Your task to perform on an android device: open app "Roku - Official Remote Control" (install if not already installed), go to login, and select forgot password Image 0: 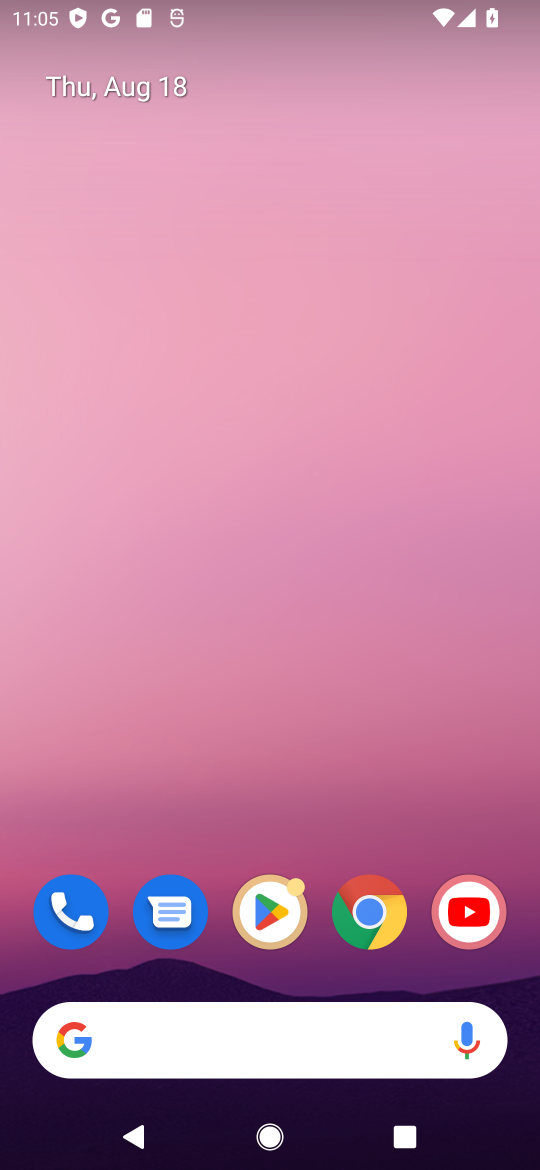
Step 0: click (276, 918)
Your task to perform on an android device: open app "Roku - Official Remote Control" (install if not already installed), go to login, and select forgot password Image 1: 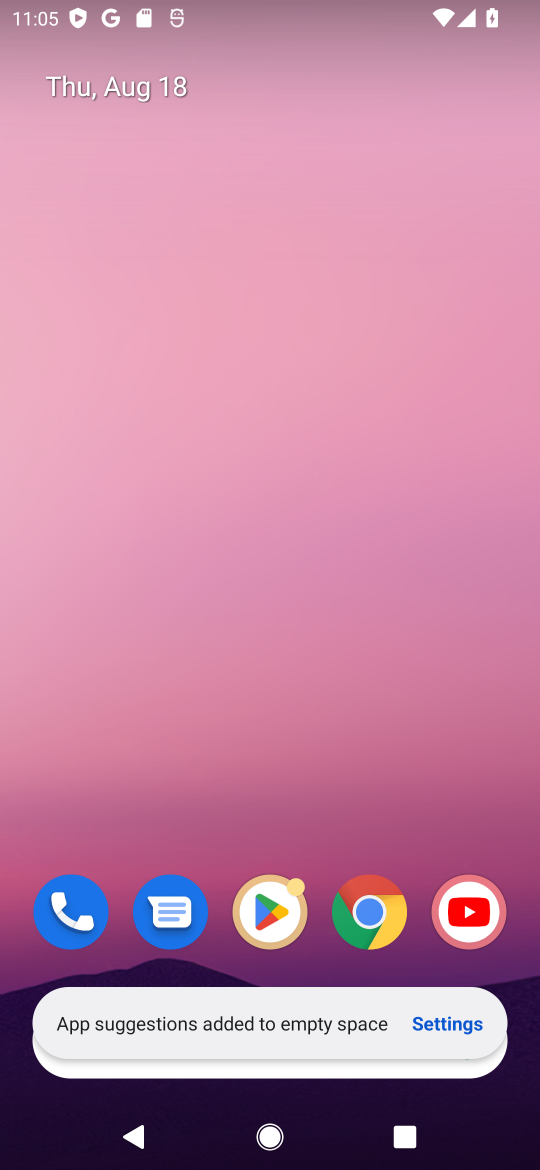
Step 1: click (275, 892)
Your task to perform on an android device: open app "Roku - Official Remote Control" (install if not already installed), go to login, and select forgot password Image 2: 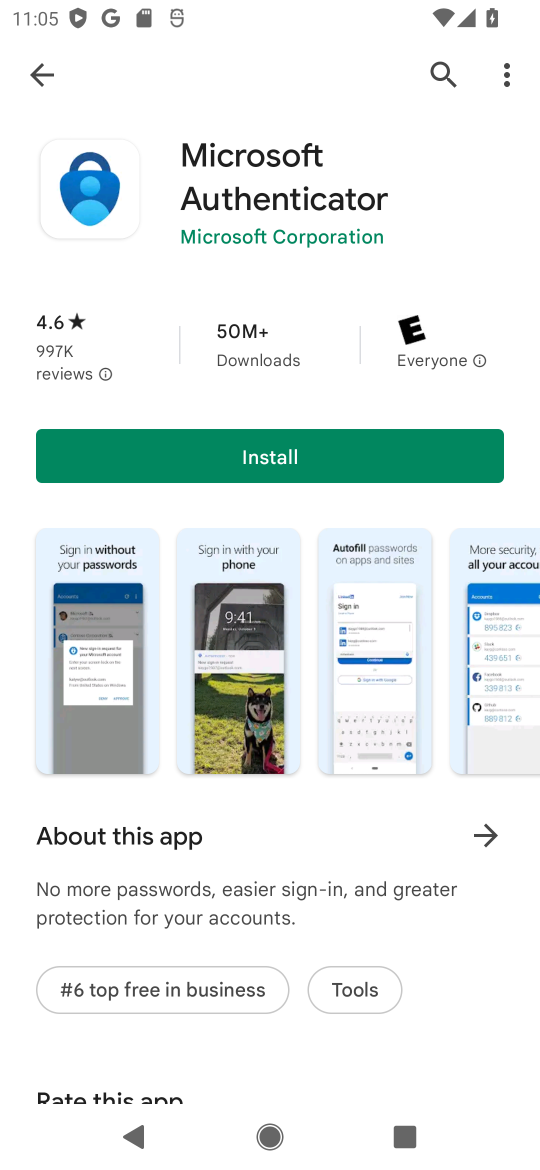
Step 2: click (432, 77)
Your task to perform on an android device: open app "Roku - Official Remote Control" (install if not already installed), go to login, and select forgot password Image 3: 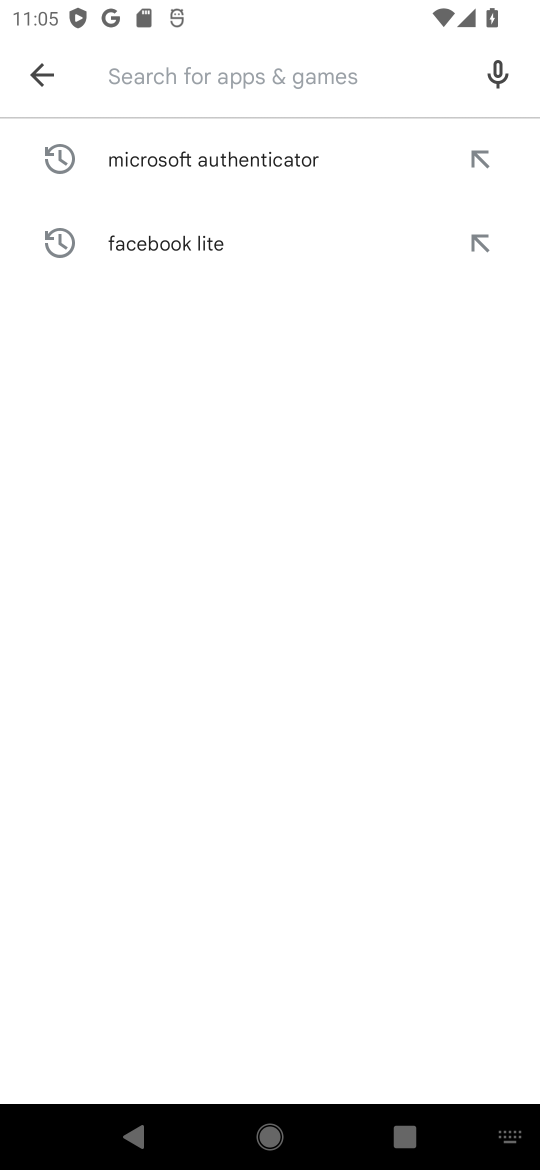
Step 3: click (177, 53)
Your task to perform on an android device: open app "Roku - Official Remote Control" (install if not already installed), go to login, and select forgot password Image 4: 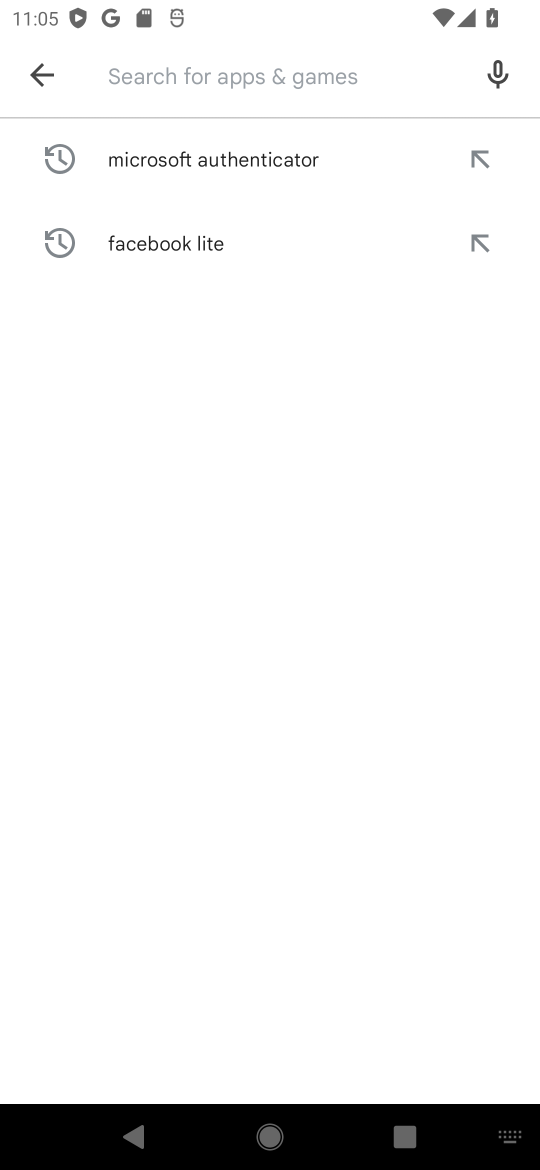
Step 4: type "roku"
Your task to perform on an android device: open app "Roku - Official Remote Control" (install if not already installed), go to login, and select forgot password Image 5: 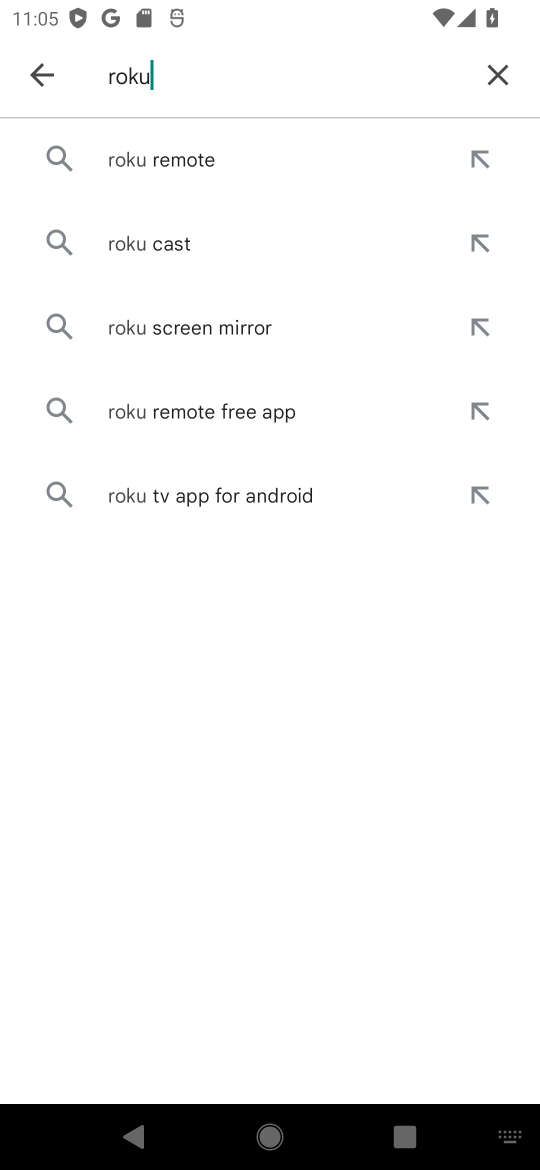
Step 5: click (204, 143)
Your task to perform on an android device: open app "Roku - Official Remote Control" (install if not already installed), go to login, and select forgot password Image 6: 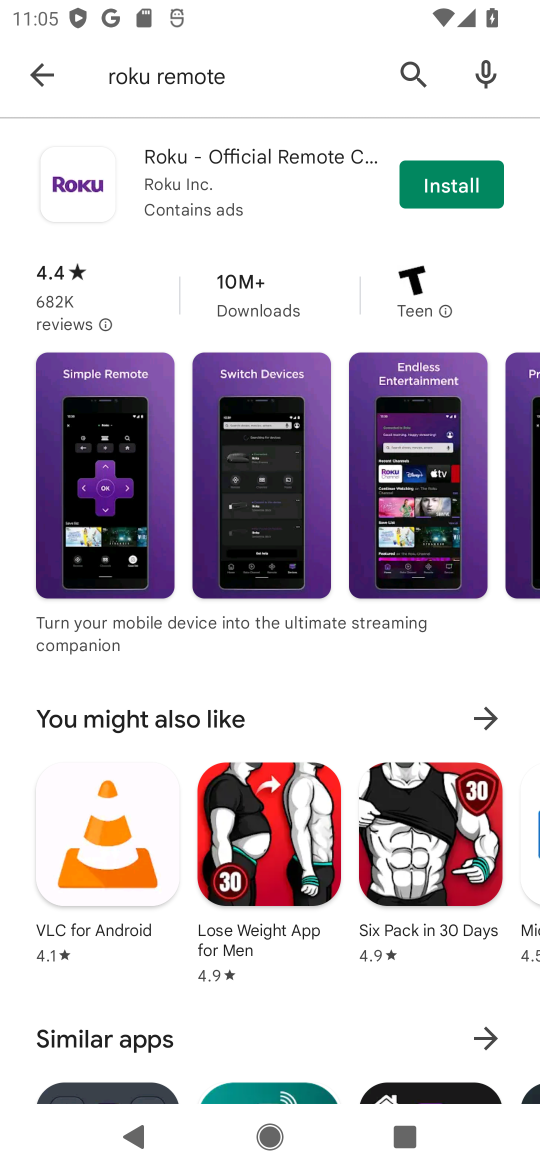
Step 6: click (488, 171)
Your task to perform on an android device: open app "Roku - Official Remote Control" (install if not already installed), go to login, and select forgot password Image 7: 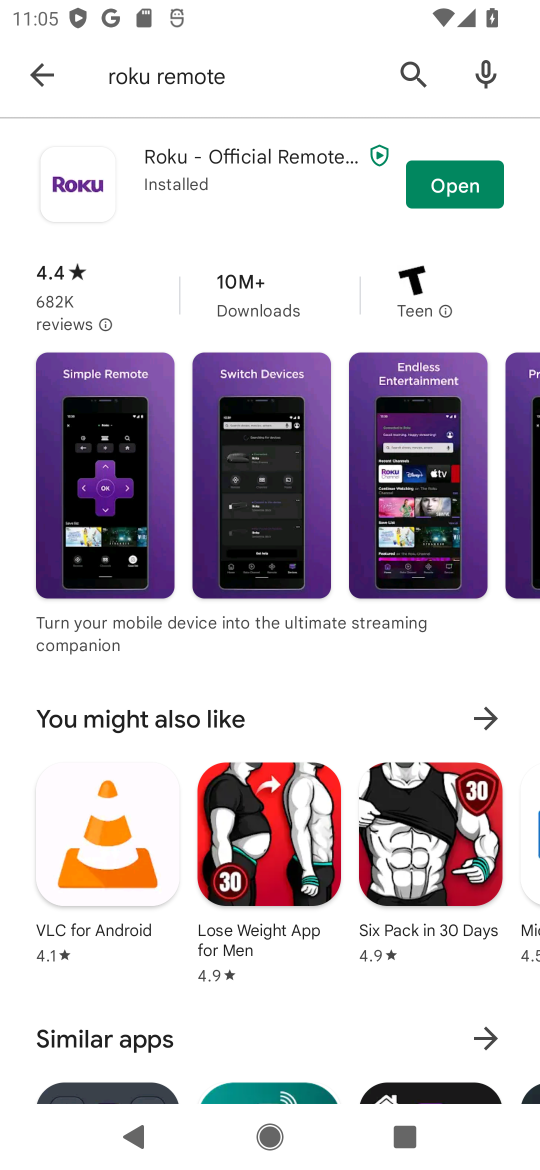
Step 7: click (462, 180)
Your task to perform on an android device: open app "Roku - Official Remote Control" (install if not already installed), go to login, and select forgot password Image 8: 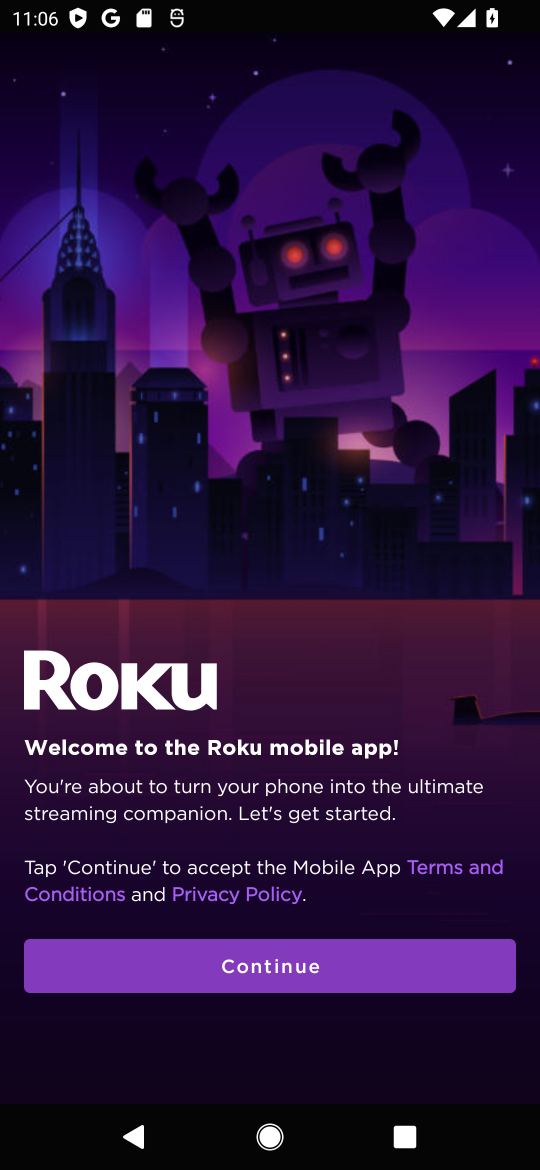
Step 8: click (296, 968)
Your task to perform on an android device: open app "Roku - Official Remote Control" (install if not already installed), go to login, and select forgot password Image 9: 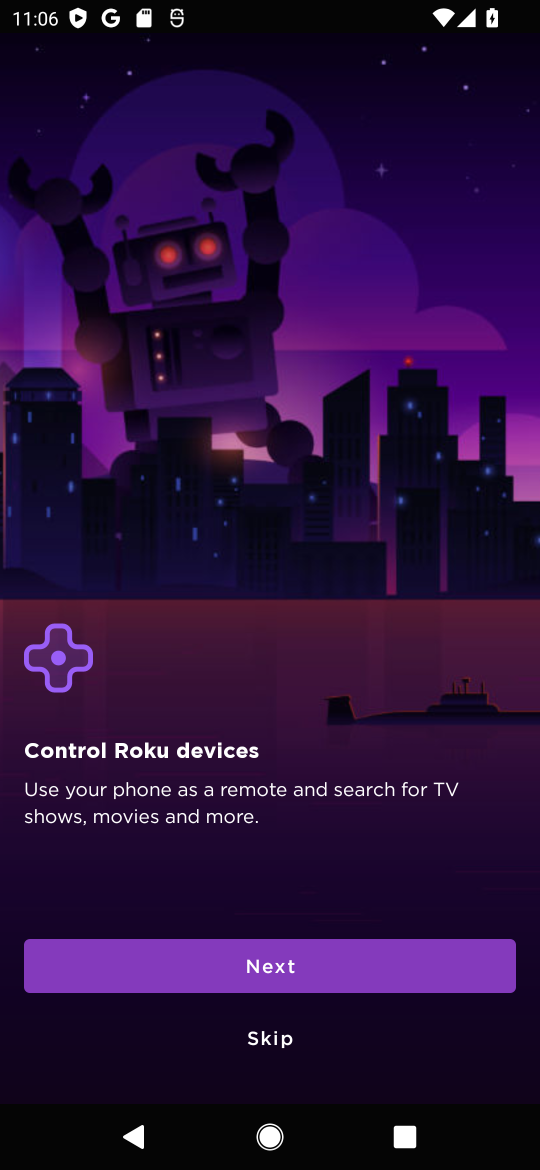
Step 9: click (289, 1036)
Your task to perform on an android device: open app "Roku - Official Remote Control" (install if not already installed), go to login, and select forgot password Image 10: 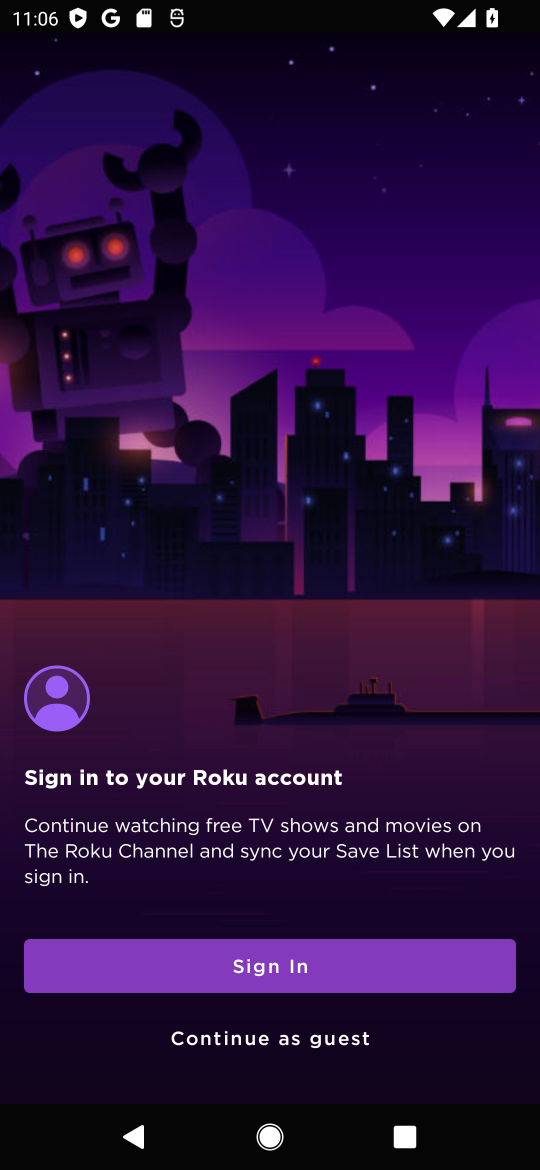
Step 10: click (274, 987)
Your task to perform on an android device: open app "Roku - Official Remote Control" (install if not already installed), go to login, and select forgot password Image 11: 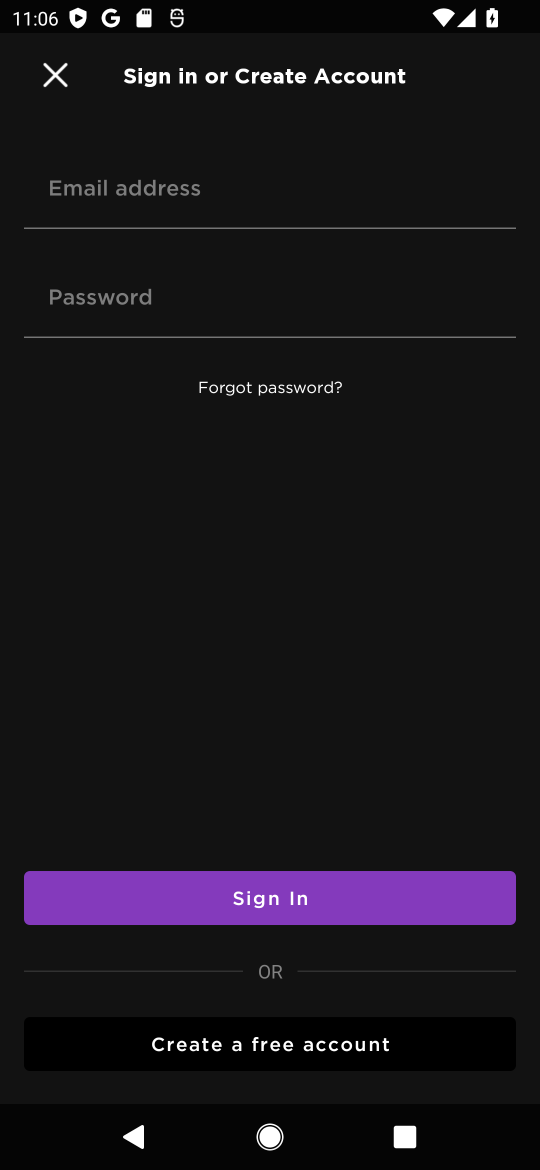
Step 11: click (238, 390)
Your task to perform on an android device: open app "Roku - Official Remote Control" (install if not already installed), go to login, and select forgot password Image 12: 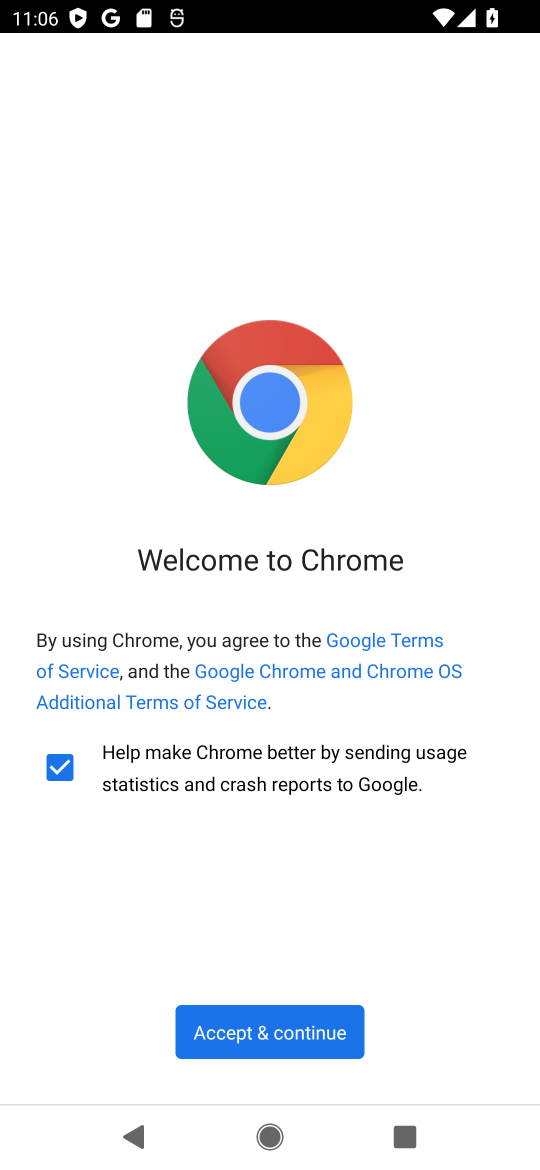
Step 12: task complete